Your task to perform on an android device: check out phone information Image 0: 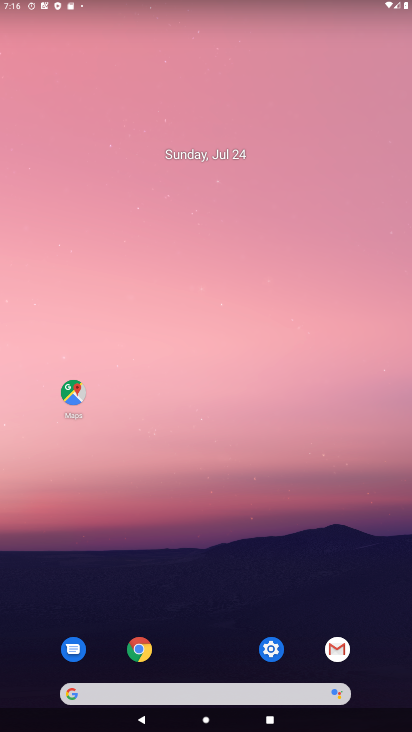
Step 0: click (276, 650)
Your task to perform on an android device: check out phone information Image 1: 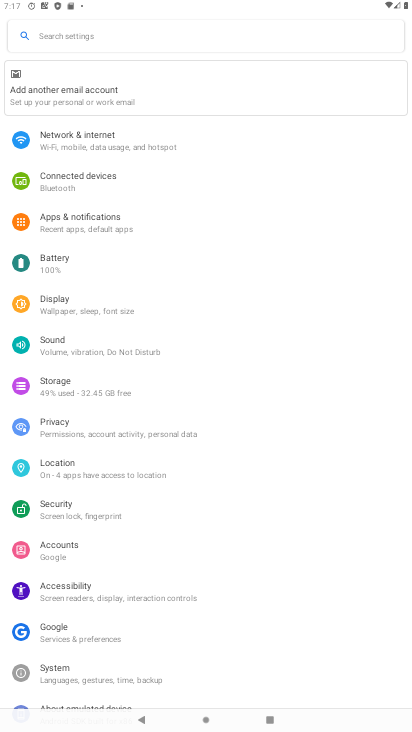
Step 1: click (88, 26)
Your task to perform on an android device: check out phone information Image 2: 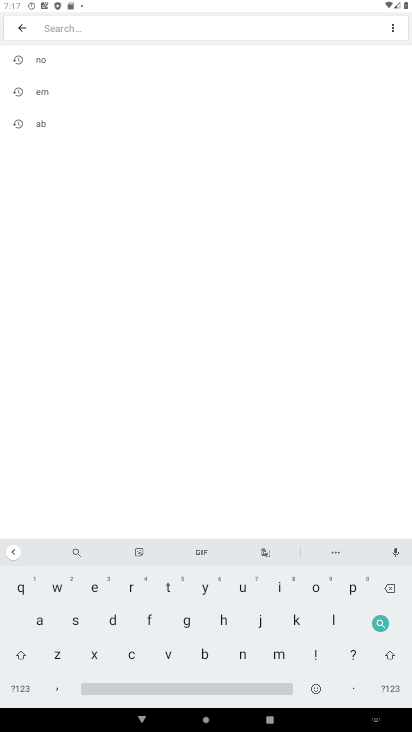
Step 2: click (45, 127)
Your task to perform on an android device: check out phone information Image 3: 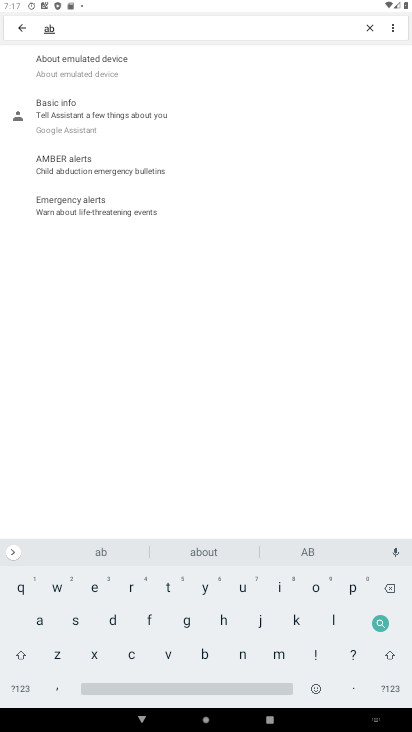
Step 3: click (97, 52)
Your task to perform on an android device: check out phone information Image 4: 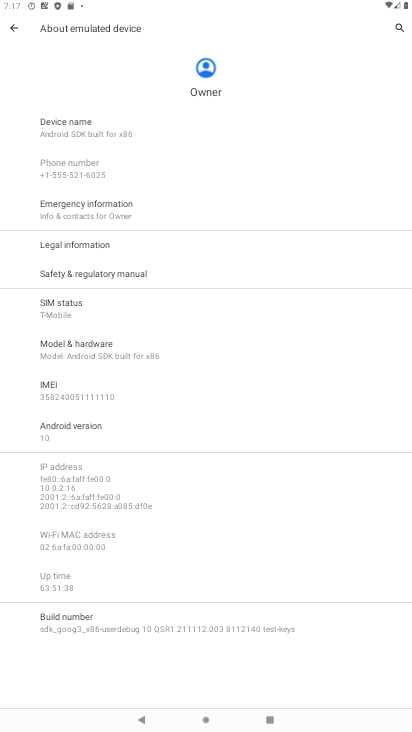
Step 4: task complete